Your task to perform on an android device: check storage Image 0: 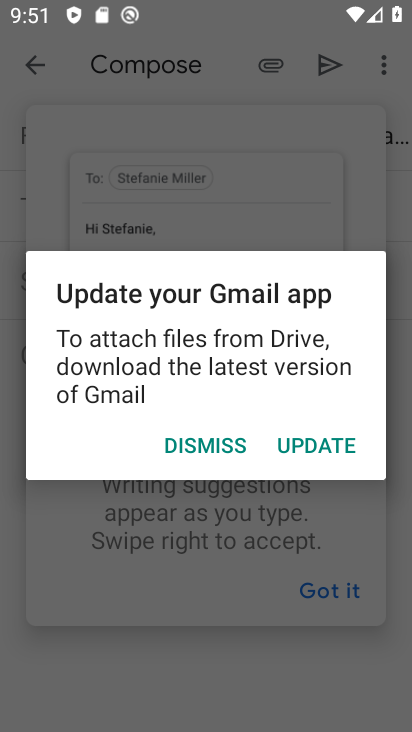
Step 0: press home button
Your task to perform on an android device: check storage Image 1: 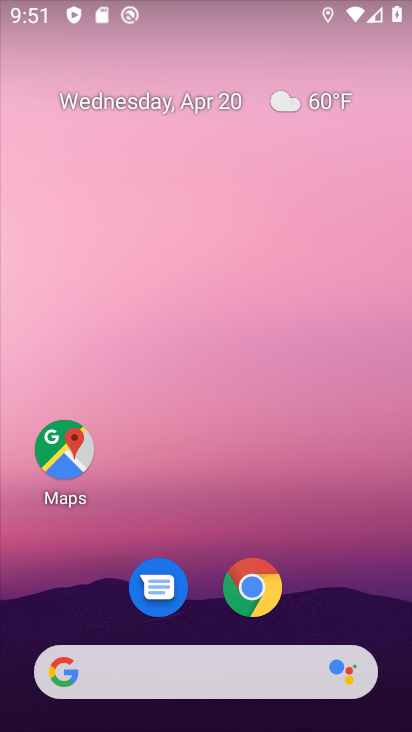
Step 1: drag from (309, 548) to (251, 105)
Your task to perform on an android device: check storage Image 2: 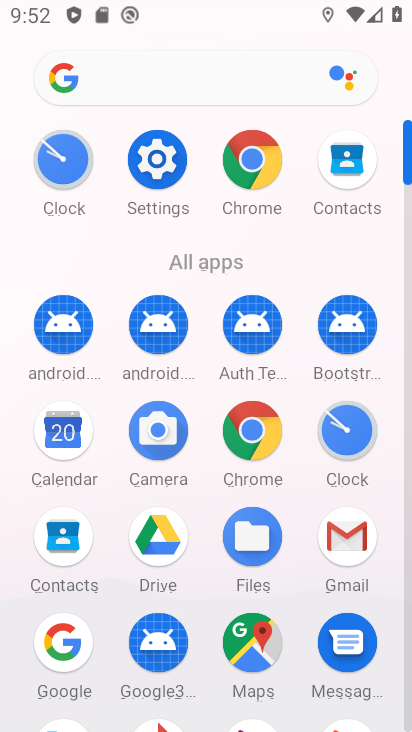
Step 2: click (130, 159)
Your task to perform on an android device: check storage Image 3: 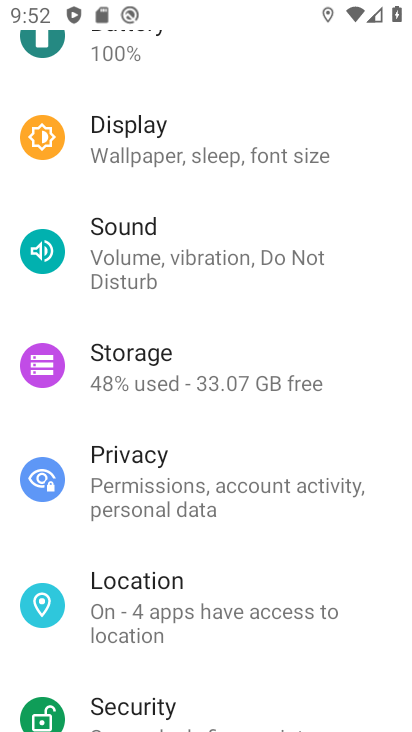
Step 3: click (160, 375)
Your task to perform on an android device: check storage Image 4: 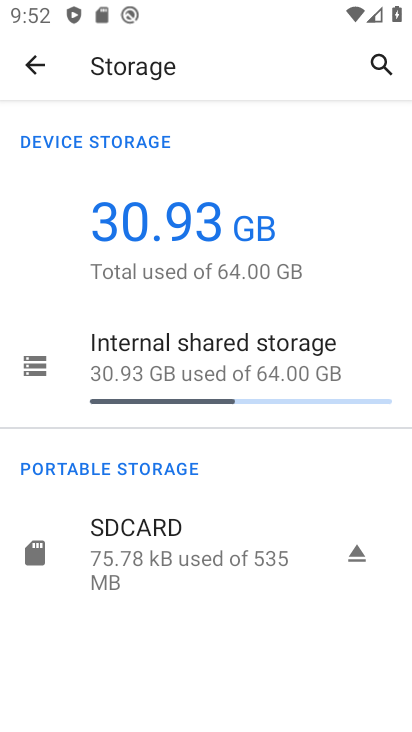
Step 4: task complete